Your task to perform on an android device: What is the news today? Image 0: 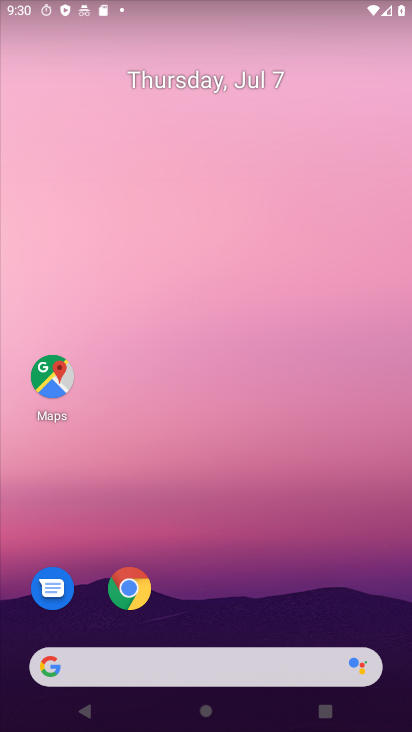
Step 0: drag from (245, 657) to (61, 154)
Your task to perform on an android device: What is the news today? Image 1: 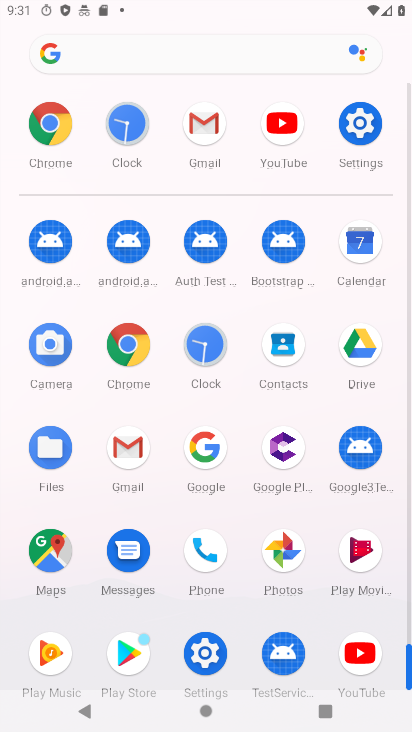
Step 1: click (53, 132)
Your task to perform on an android device: What is the news today? Image 2: 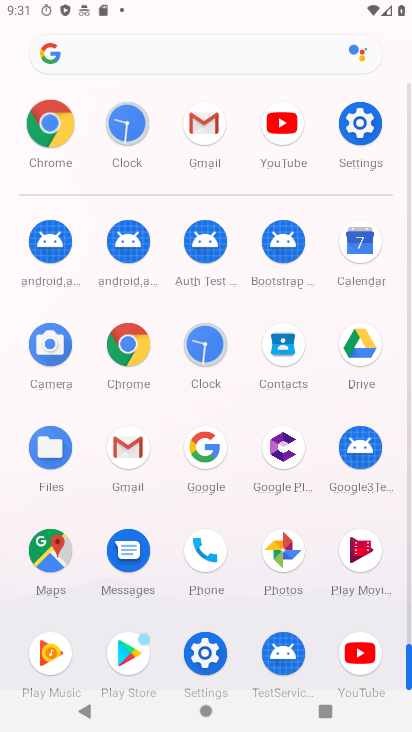
Step 2: click (53, 128)
Your task to perform on an android device: What is the news today? Image 3: 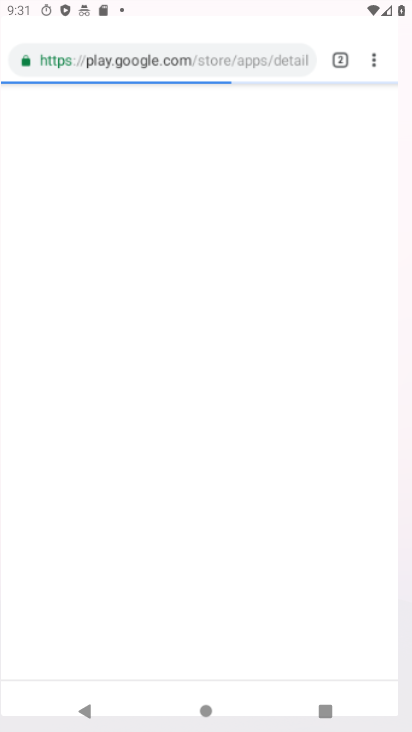
Step 3: click (61, 125)
Your task to perform on an android device: What is the news today? Image 4: 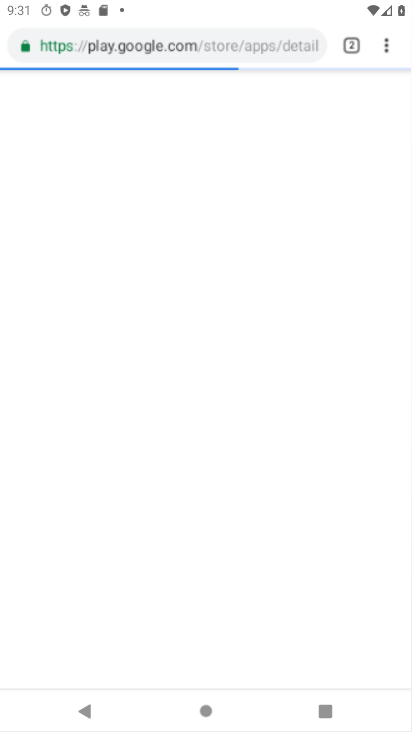
Step 4: click (61, 125)
Your task to perform on an android device: What is the news today? Image 5: 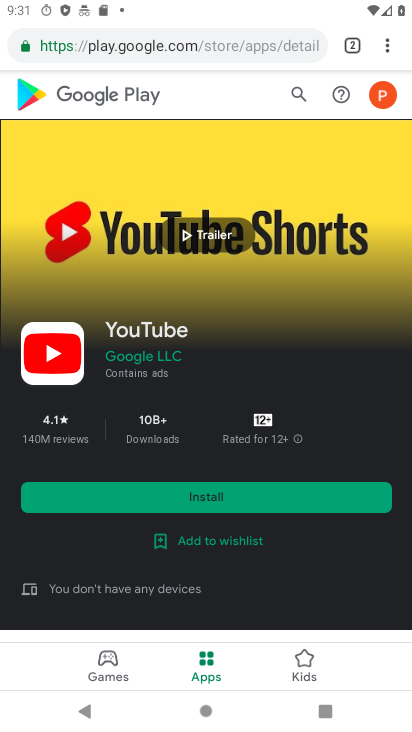
Step 5: click (383, 45)
Your task to perform on an android device: What is the news today? Image 6: 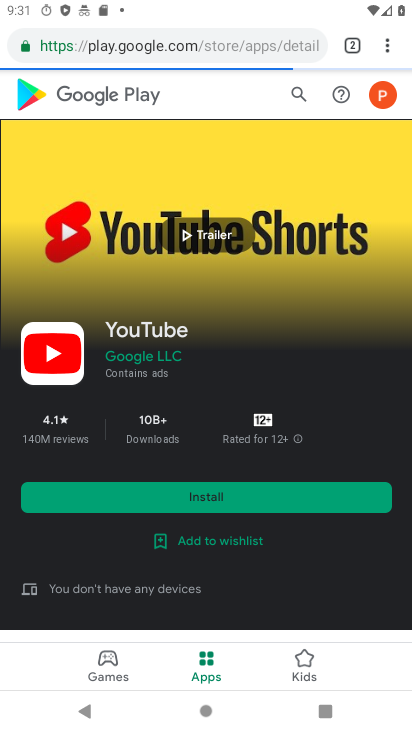
Step 6: press back button
Your task to perform on an android device: What is the news today? Image 7: 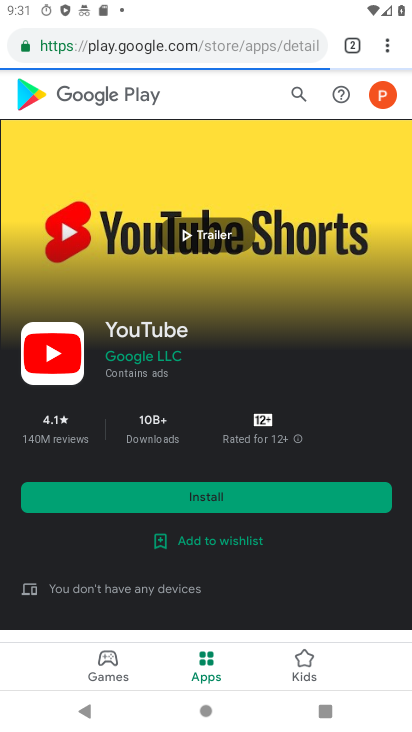
Step 7: press back button
Your task to perform on an android device: What is the news today? Image 8: 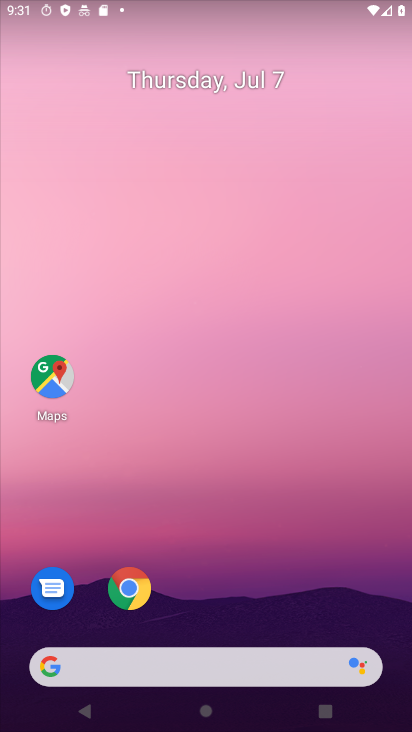
Step 8: drag from (270, 684) to (131, 197)
Your task to perform on an android device: What is the news today? Image 9: 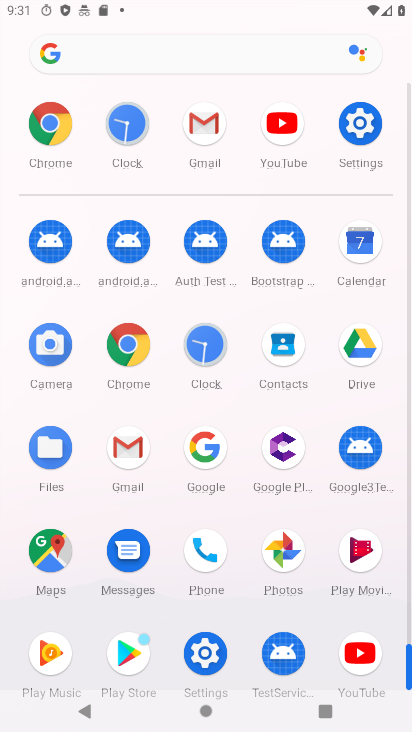
Step 9: click (42, 131)
Your task to perform on an android device: What is the news today? Image 10: 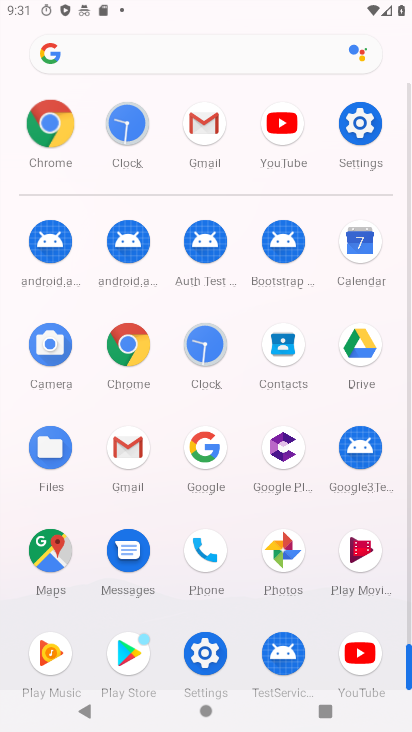
Step 10: click (42, 131)
Your task to perform on an android device: What is the news today? Image 11: 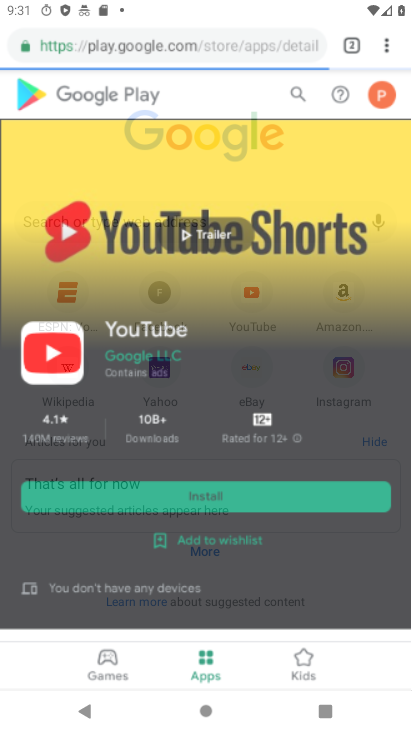
Step 11: click (104, 35)
Your task to perform on an android device: What is the news today? Image 12: 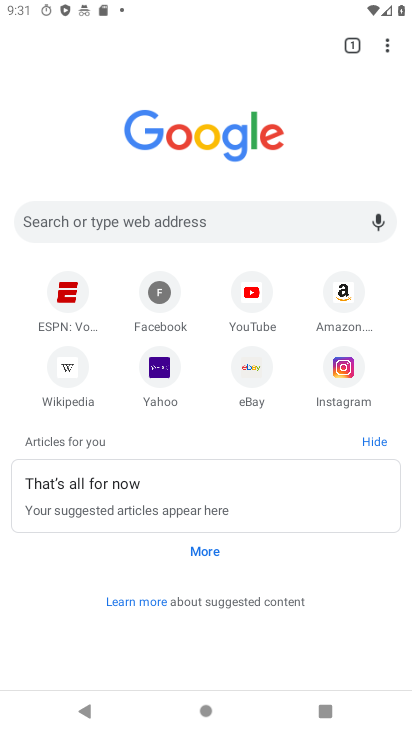
Step 12: click (104, 37)
Your task to perform on an android device: What is the news today? Image 13: 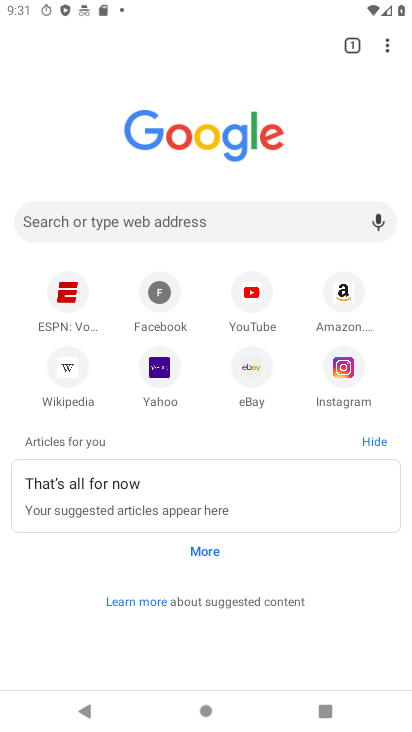
Step 13: click (79, 218)
Your task to perform on an android device: What is the news today? Image 14: 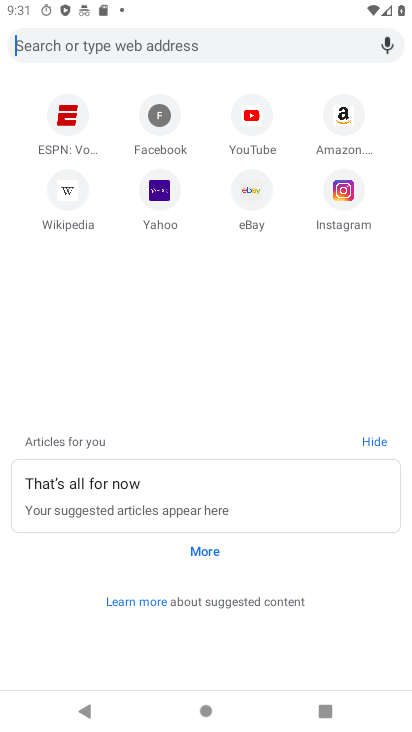
Step 14: click (79, 218)
Your task to perform on an android device: What is the news today? Image 15: 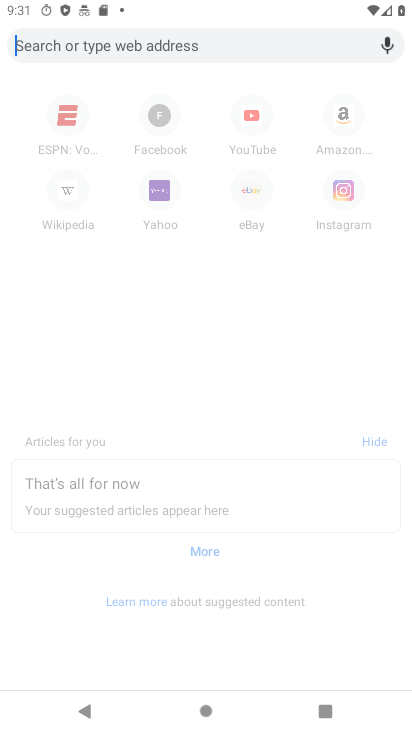
Step 15: click (79, 218)
Your task to perform on an android device: What is the news today? Image 16: 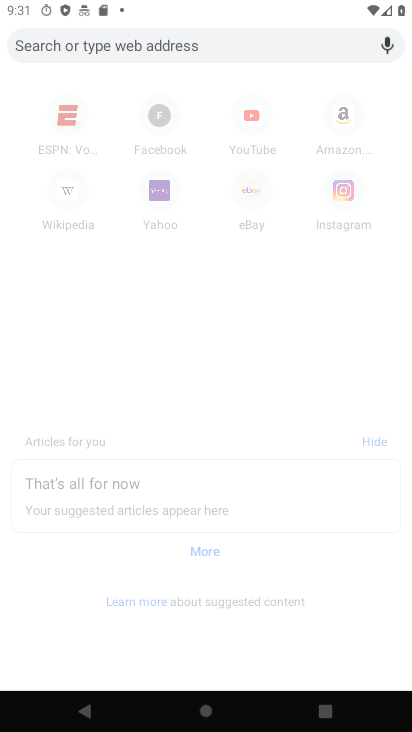
Step 16: click (79, 218)
Your task to perform on an android device: What is the news today? Image 17: 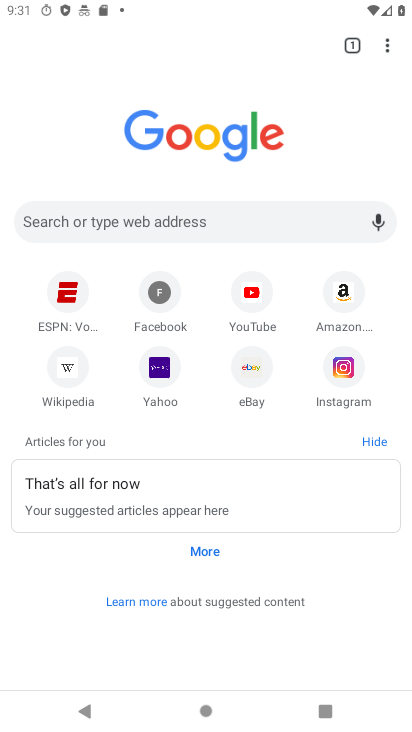
Step 17: click (80, 233)
Your task to perform on an android device: What is the news today? Image 18: 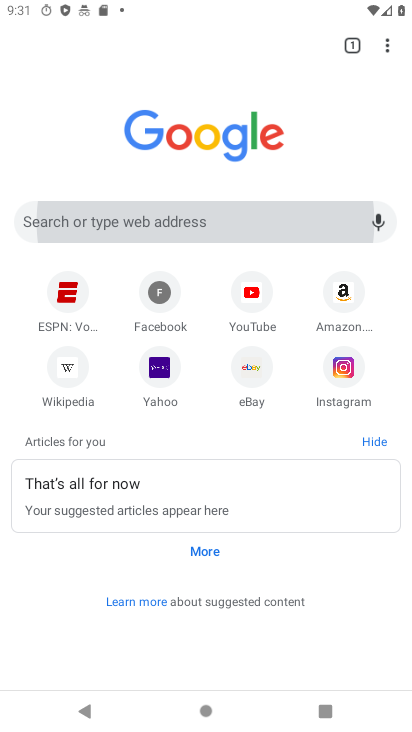
Step 18: click (76, 200)
Your task to perform on an android device: What is the news today? Image 19: 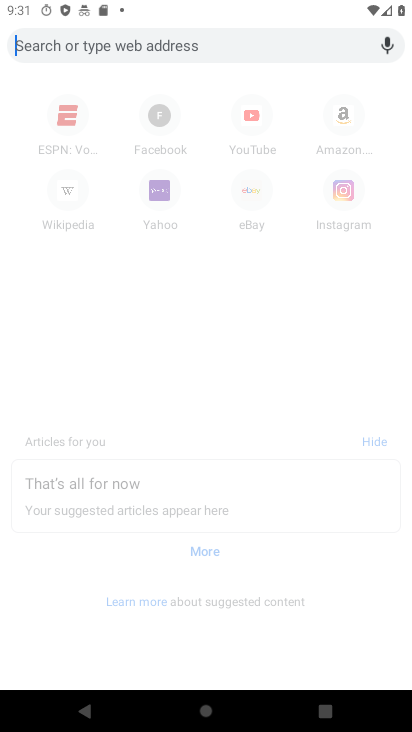
Step 19: press back button
Your task to perform on an android device: What is the news today? Image 20: 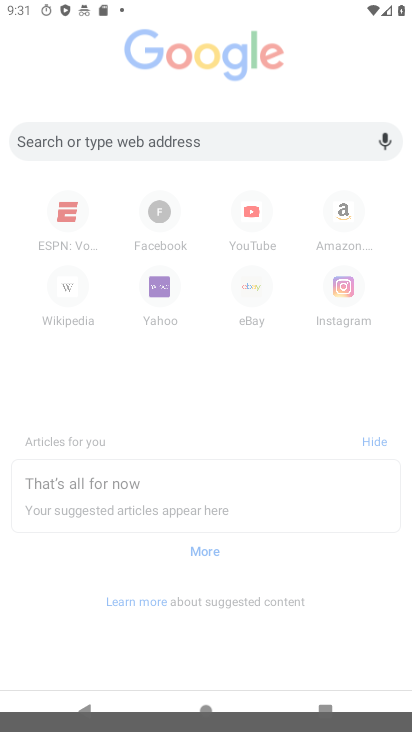
Step 20: press back button
Your task to perform on an android device: What is the news today? Image 21: 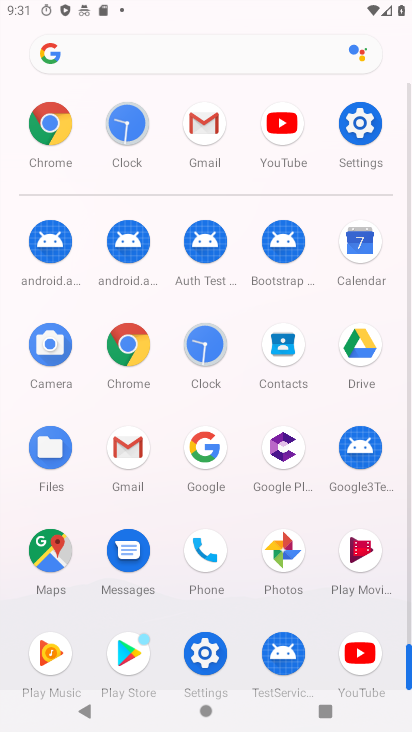
Step 21: drag from (78, 183) to (78, 58)
Your task to perform on an android device: What is the news today? Image 22: 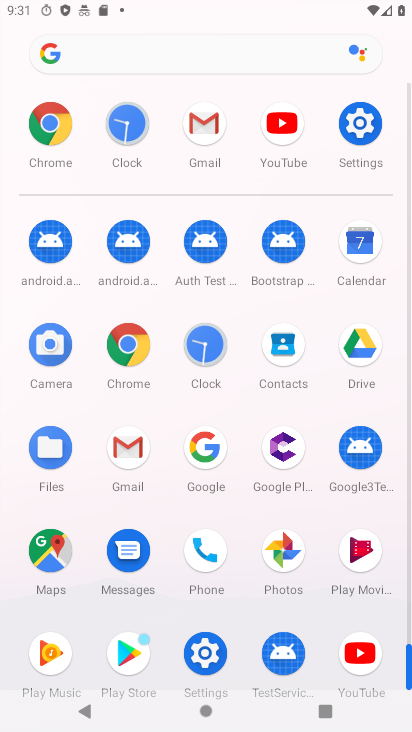
Step 22: drag from (173, 361) to (137, 133)
Your task to perform on an android device: What is the news today? Image 23: 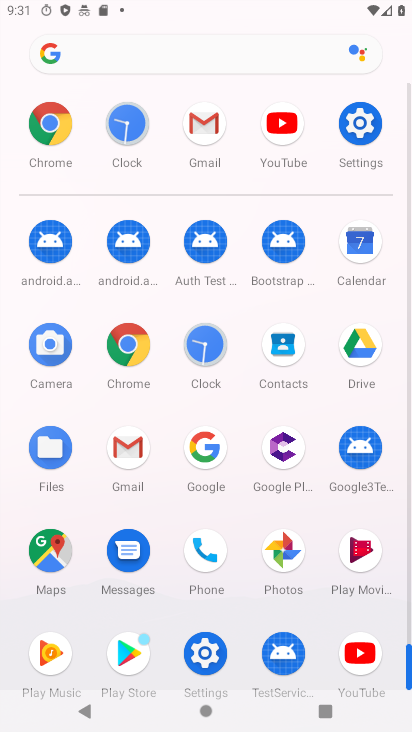
Step 23: click (42, 119)
Your task to perform on an android device: What is the news today? Image 24: 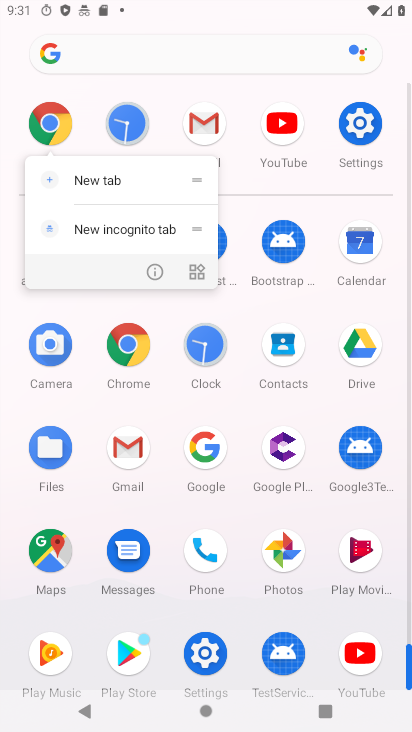
Step 24: click (45, 116)
Your task to perform on an android device: What is the news today? Image 25: 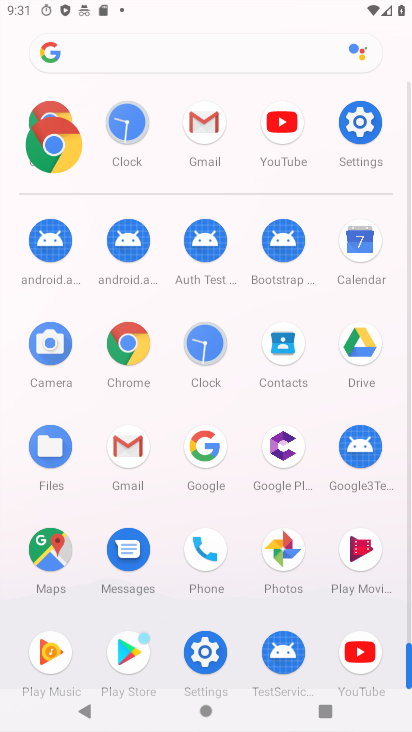
Step 25: click (45, 116)
Your task to perform on an android device: What is the news today? Image 26: 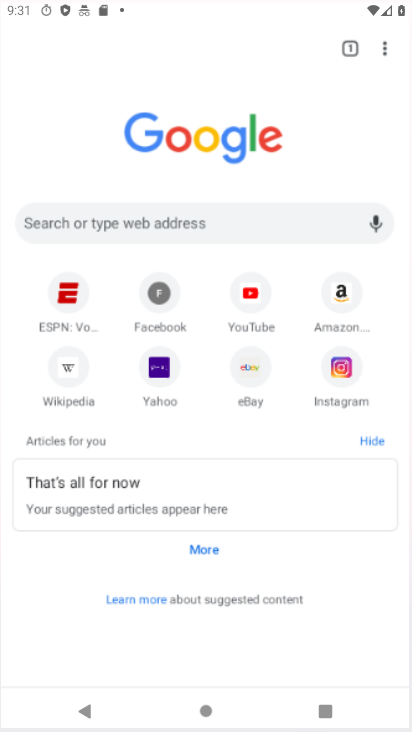
Step 26: click (48, 121)
Your task to perform on an android device: What is the news today? Image 27: 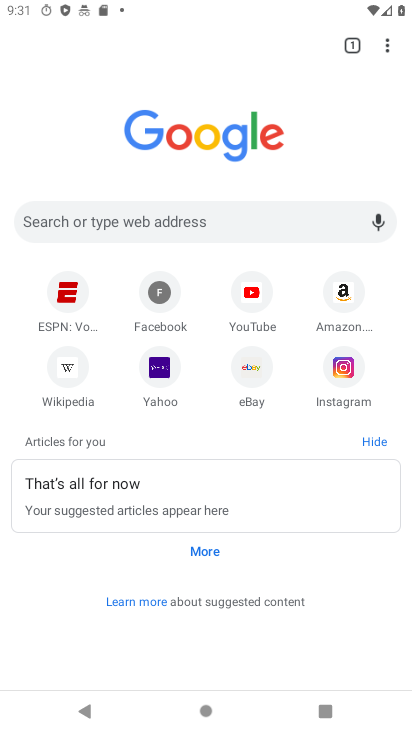
Step 27: task complete